Your task to perform on an android device: turn on javascript in the chrome app Image 0: 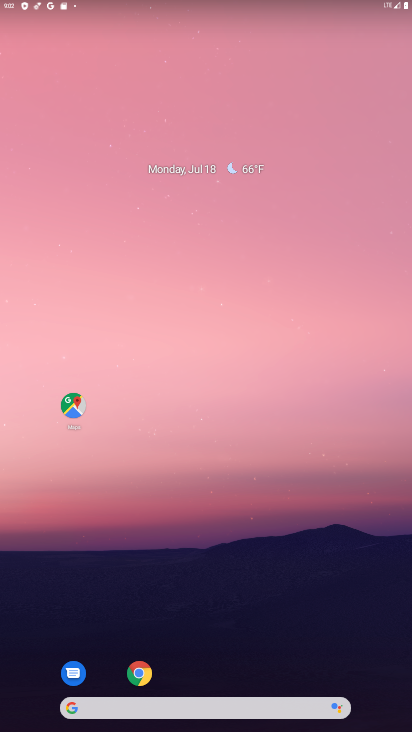
Step 0: drag from (197, 676) to (205, 149)
Your task to perform on an android device: turn on javascript in the chrome app Image 1: 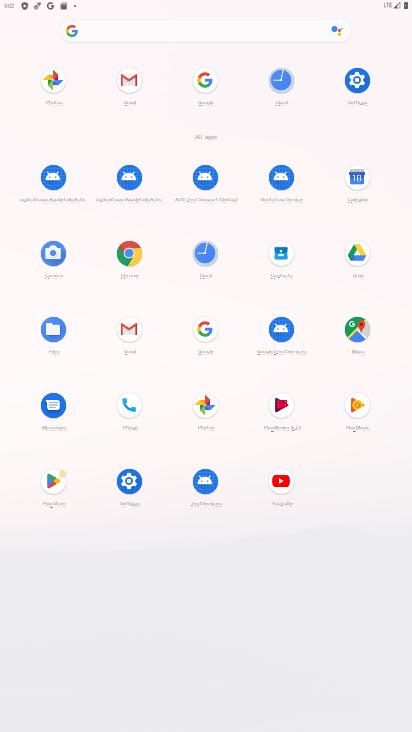
Step 1: click (130, 257)
Your task to perform on an android device: turn on javascript in the chrome app Image 2: 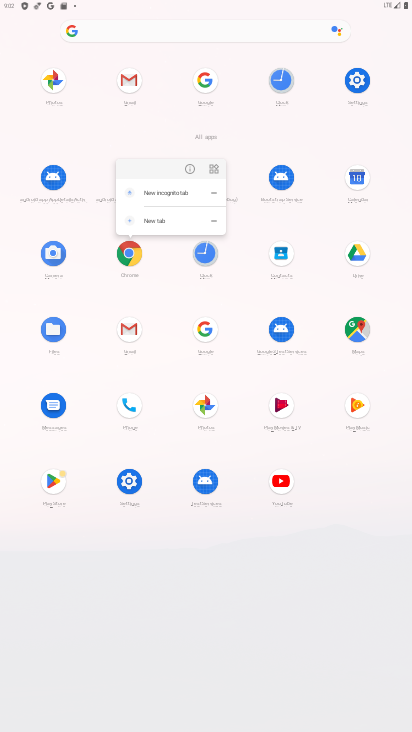
Step 2: click (130, 257)
Your task to perform on an android device: turn on javascript in the chrome app Image 3: 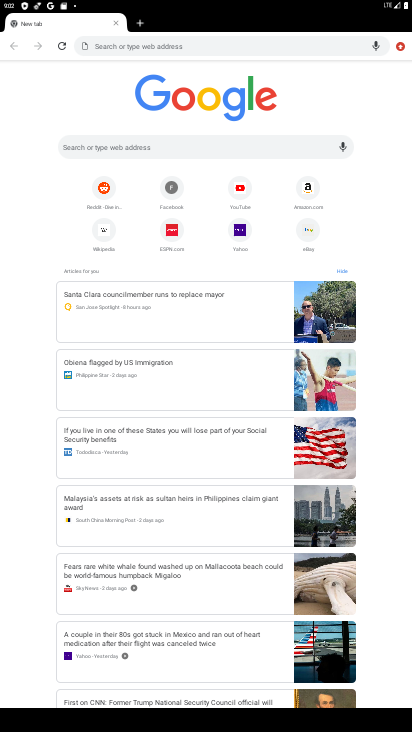
Step 3: click (399, 47)
Your task to perform on an android device: turn on javascript in the chrome app Image 4: 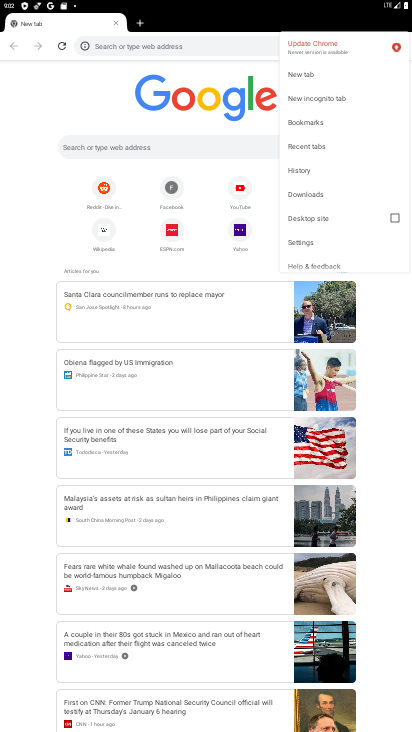
Step 4: click (296, 237)
Your task to perform on an android device: turn on javascript in the chrome app Image 5: 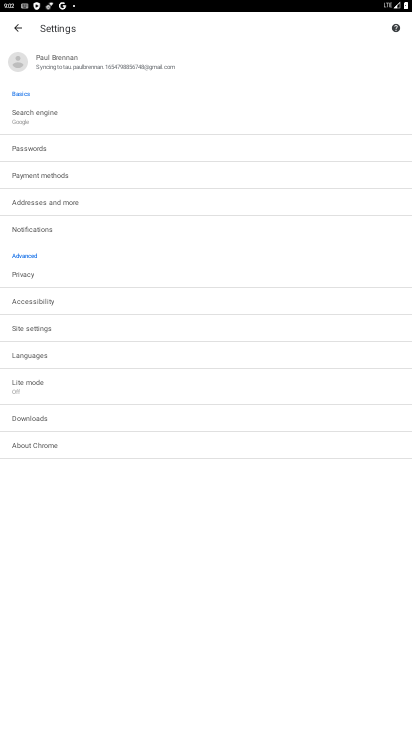
Step 5: click (36, 326)
Your task to perform on an android device: turn on javascript in the chrome app Image 6: 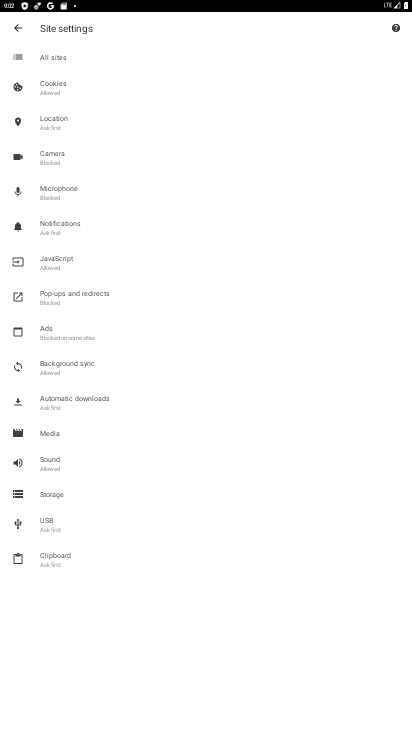
Step 6: click (66, 262)
Your task to perform on an android device: turn on javascript in the chrome app Image 7: 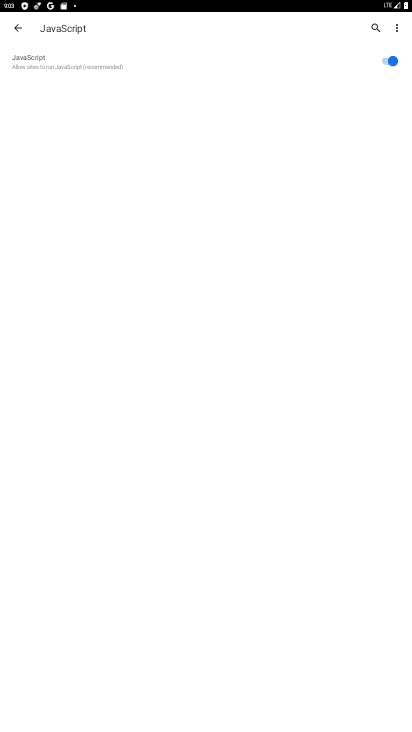
Step 7: task complete